Your task to perform on an android device: turn off location Image 0: 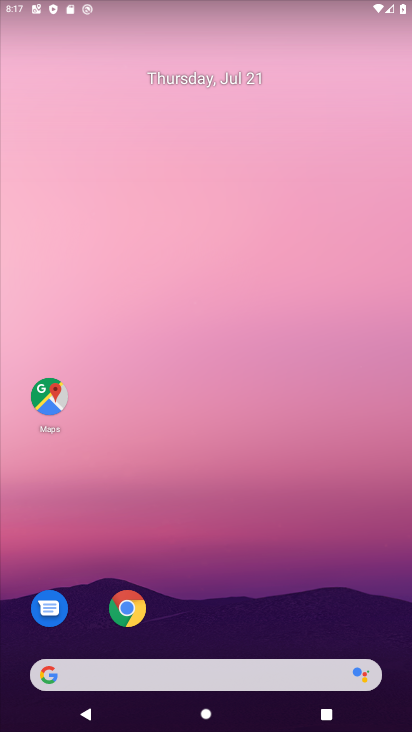
Step 0: drag from (17, 693) to (279, 139)
Your task to perform on an android device: turn off location Image 1: 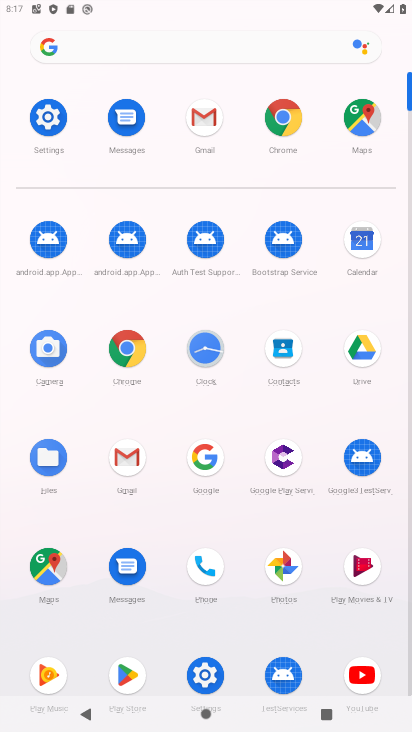
Step 1: click (209, 669)
Your task to perform on an android device: turn off location Image 2: 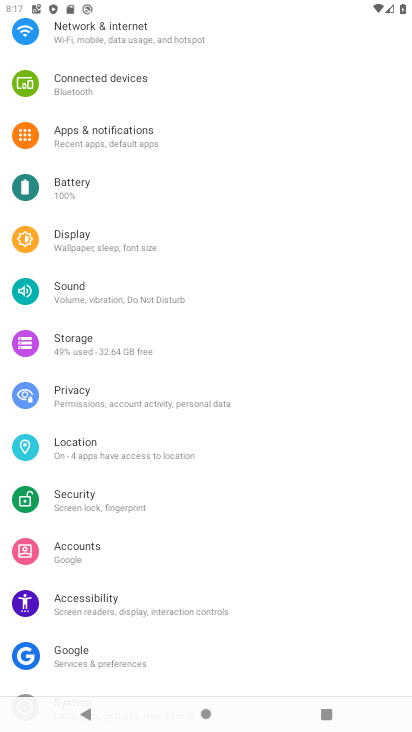
Step 2: click (109, 427)
Your task to perform on an android device: turn off location Image 3: 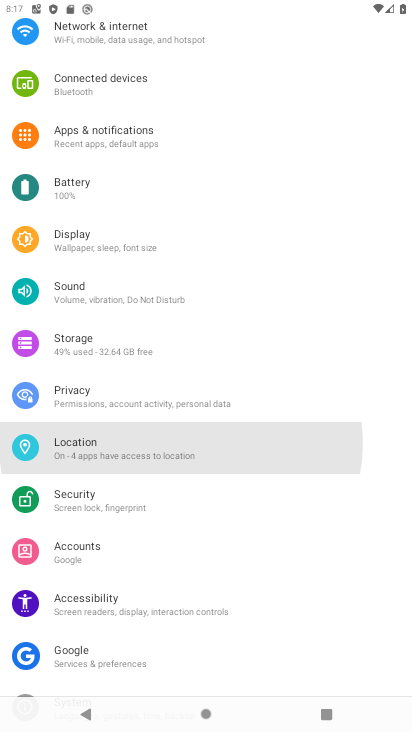
Step 3: click (107, 447)
Your task to perform on an android device: turn off location Image 4: 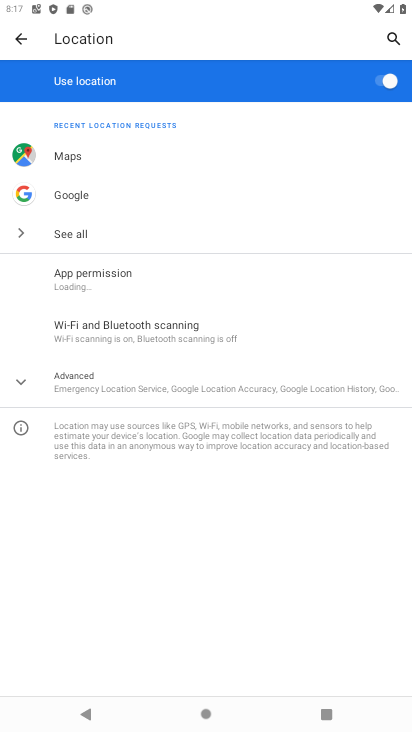
Step 4: click (114, 389)
Your task to perform on an android device: turn off location Image 5: 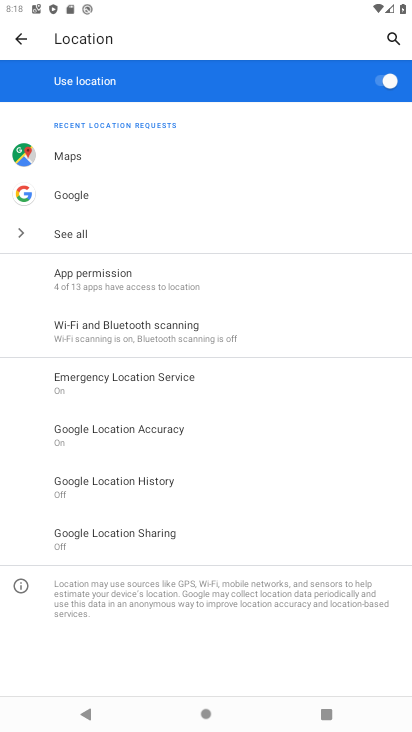
Step 5: click (115, 446)
Your task to perform on an android device: turn off location Image 6: 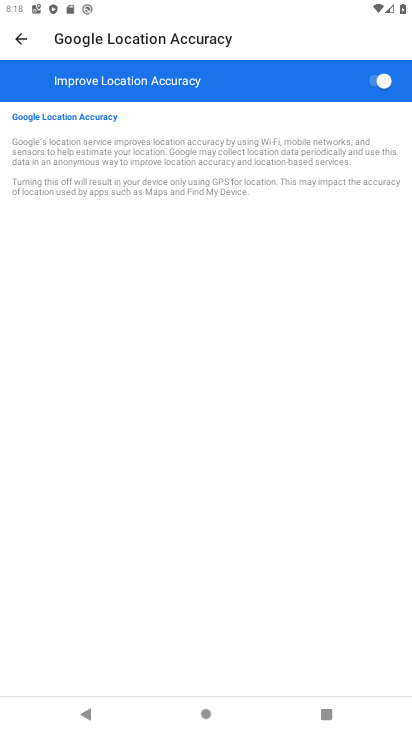
Step 6: click (22, 38)
Your task to perform on an android device: turn off location Image 7: 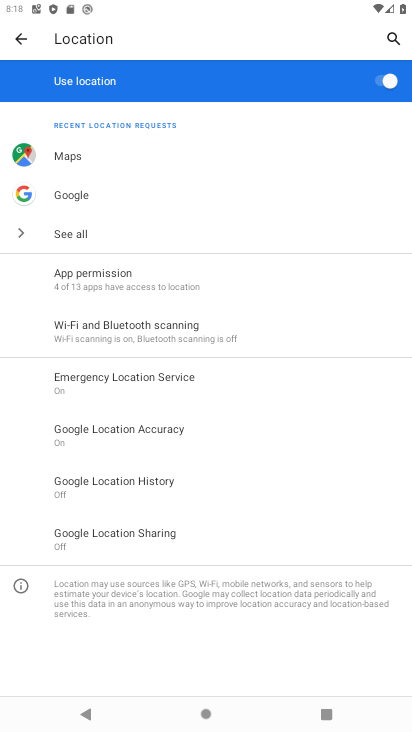
Step 7: click (389, 68)
Your task to perform on an android device: turn off location Image 8: 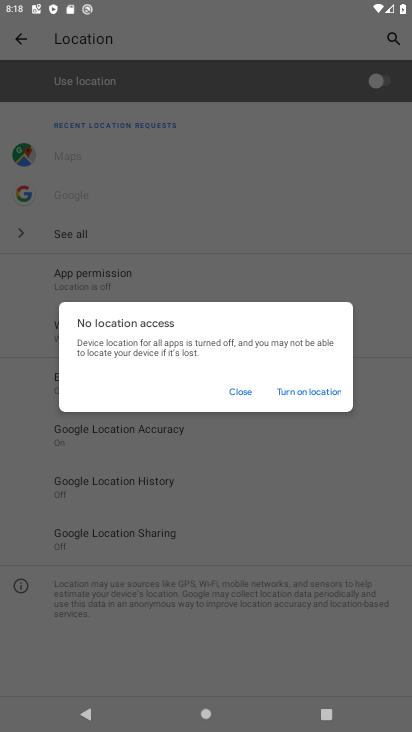
Step 8: click (245, 393)
Your task to perform on an android device: turn off location Image 9: 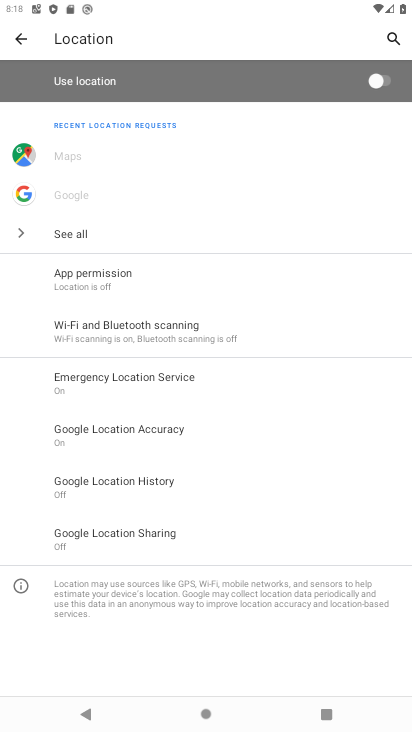
Step 9: task complete